Your task to perform on an android device: Open battery settings Image 0: 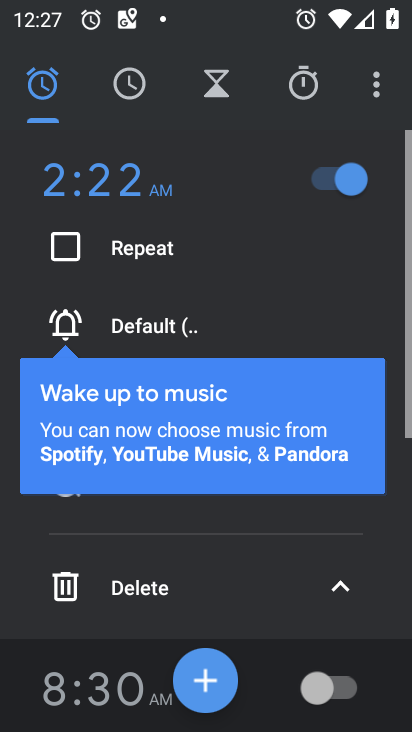
Step 0: drag from (167, 616) to (178, 103)
Your task to perform on an android device: Open battery settings Image 1: 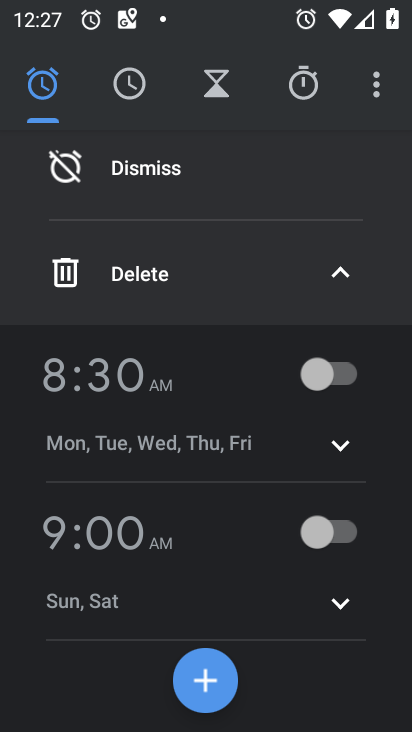
Step 1: press back button
Your task to perform on an android device: Open battery settings Image 2: 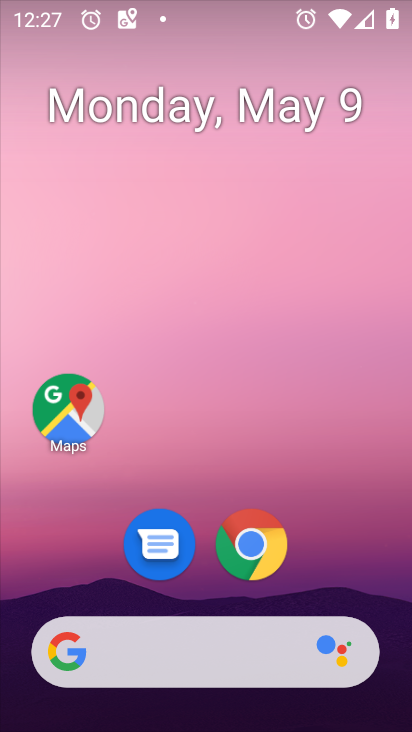
Step 2: drag from (243, 658) to (256, 7)
Your task to perform on an android device: Open battery settings Image 3: 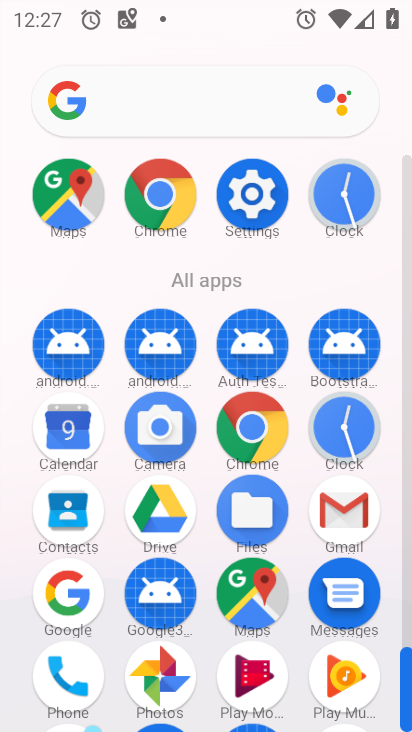
Step 3: click (269, 220)
Your task to perform on an android device: Open battery settings Image 4: 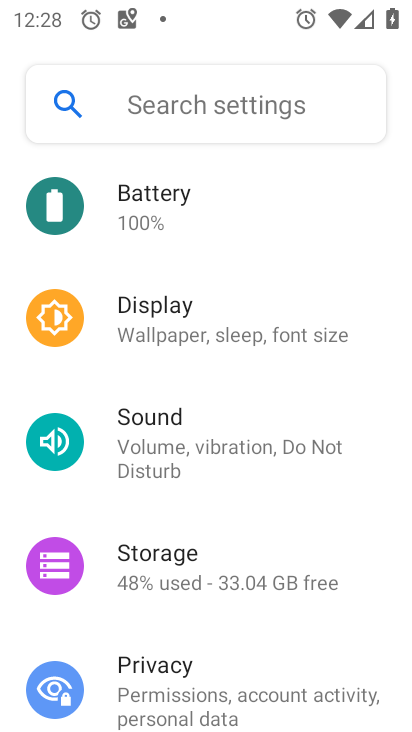
Step 4: click (146, 218)
Your task to perform on an android device: Open battery settings Image 5: 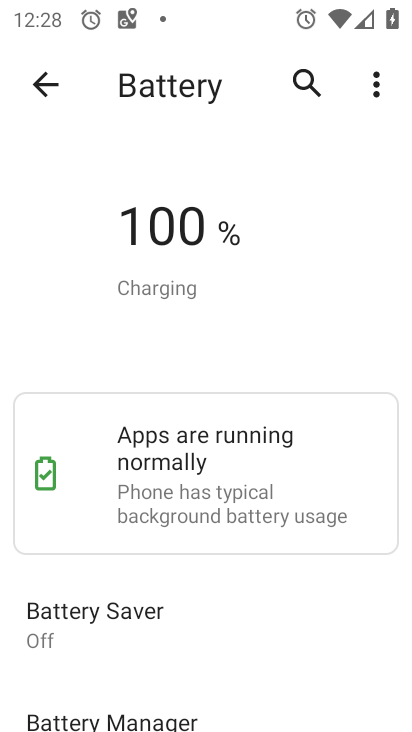
Step 5: task complete